Your task to perform on an android device: toggle javascript in the chrome app Image 0: 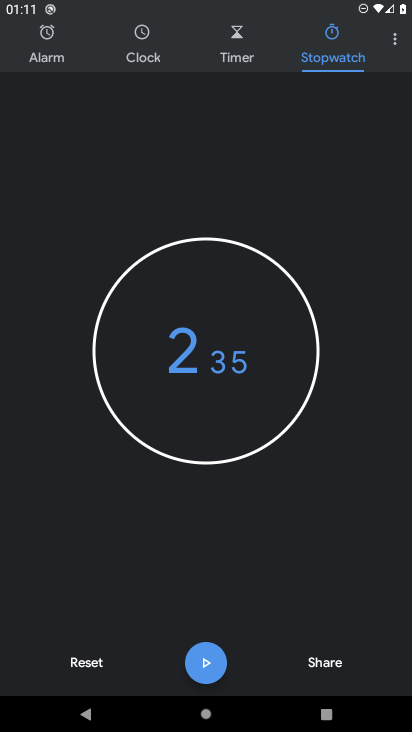
Step 0: press home button
Your task to perform on an android device: toggle javascript in the chrome app Image 1: 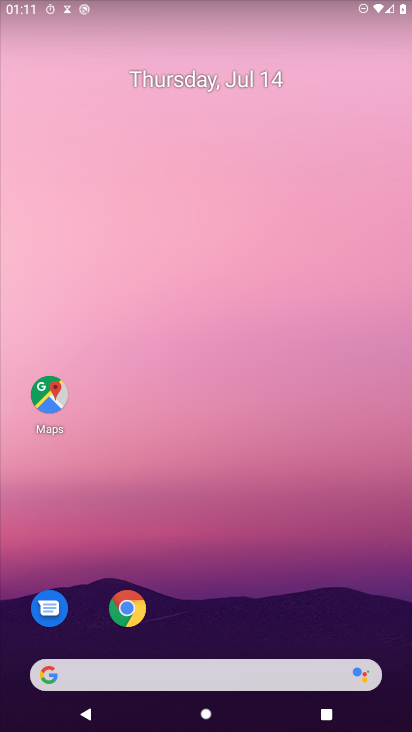
Step 1: click (137, 599)
Your task to perform on an android device: toggle javascript in the chrome app Image 2: 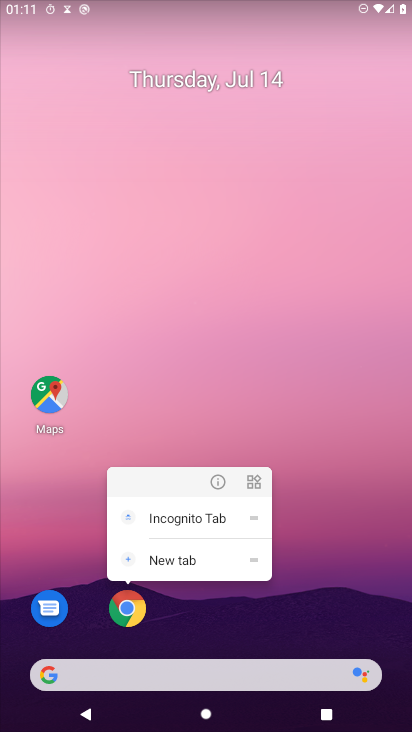
Step 2: click (124, 614)
Your task to perform on an android device: toggle javascript in the chrome app Image 3: 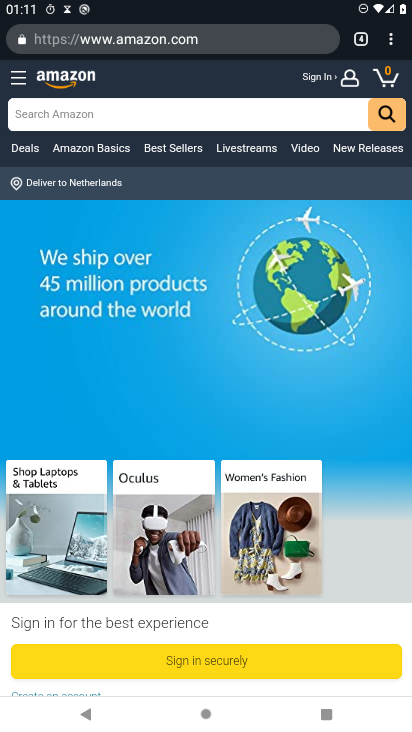
Step 3: drag from (392, 40) to (261, 471)
Your task to perform on an android device: toggle javascript in the chrome app Image 4: 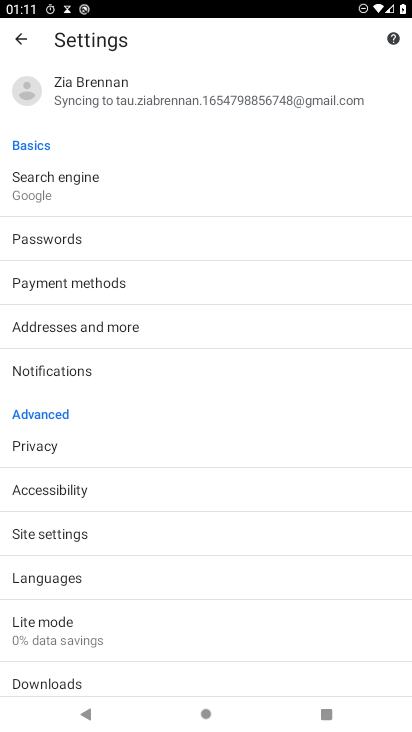
Step 4: drag from (215, 424) to (216, 6)
Your task to perform on an android device: toggle javascript in the chrome app Image 5: 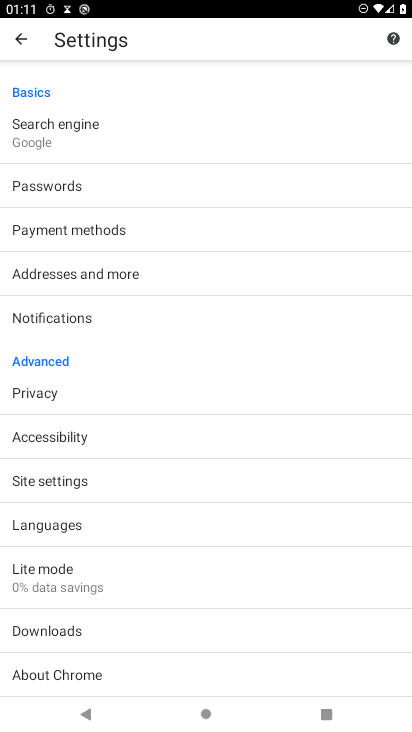
Step 5: drag from (164, 370) to (170, 154)
Your task to perform on an android device: toggle javascript in the chrome app Image 6: 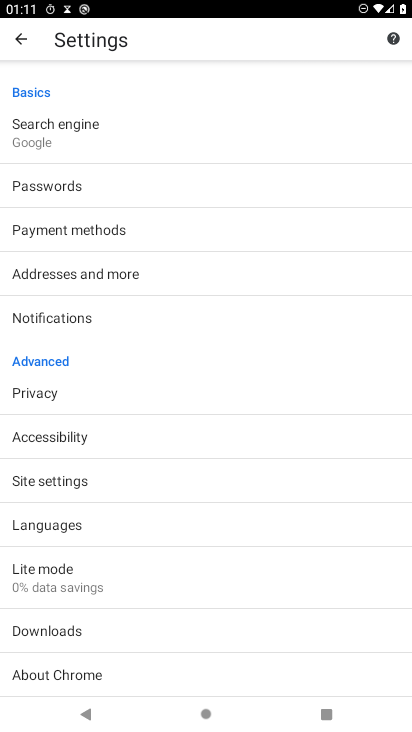
Step 6: click (53, 486)
Your task to perform on an android device: toggle javascript in the chrome app Image 7: 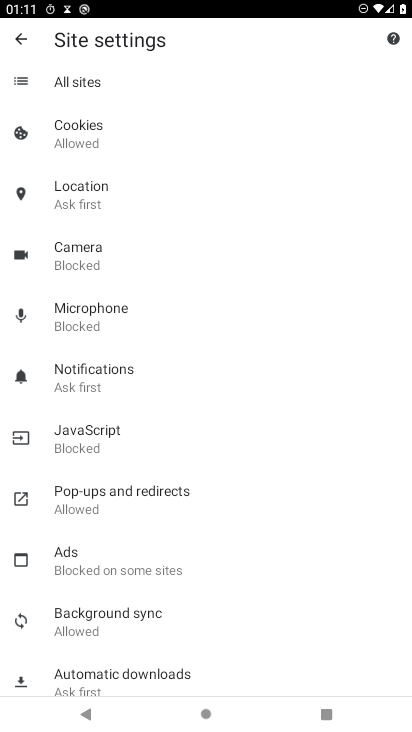
Step 7: click (113, 439)
Your task to perform on an android device: toggle javascript in the chrome app Image 8: 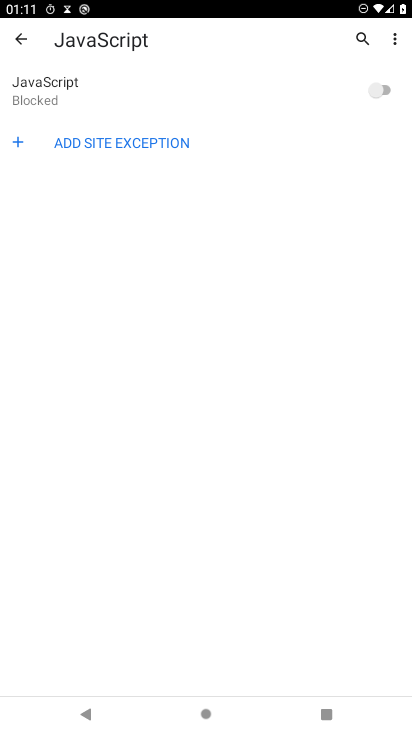
Step 8: click (386, 84)
Your task to perform on an android device: toggle javascript in the chrome app Image 9: 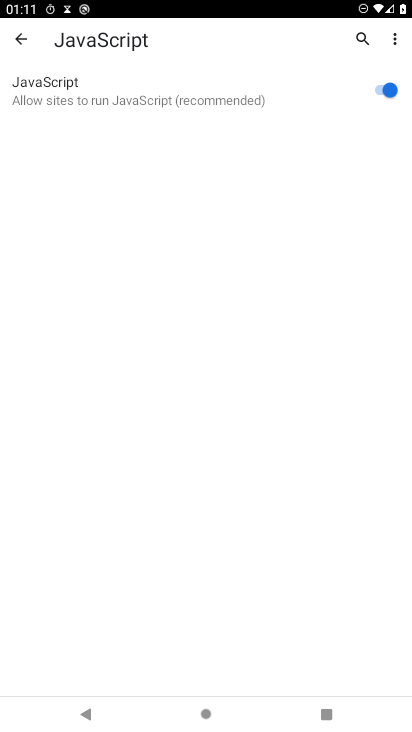
Step 9: task complete